Your task to perform on an android device: Search for Italian restaurants on Maps Image 0: 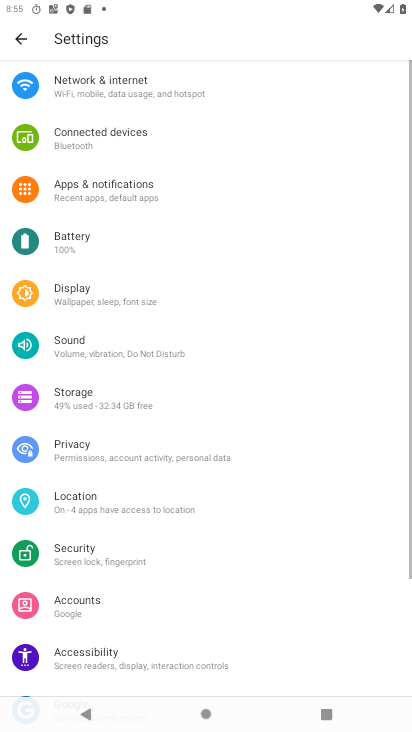
Step 0: press home button
Your task to perform on an android device: Search for Italian restaurants on Maps Image 1: 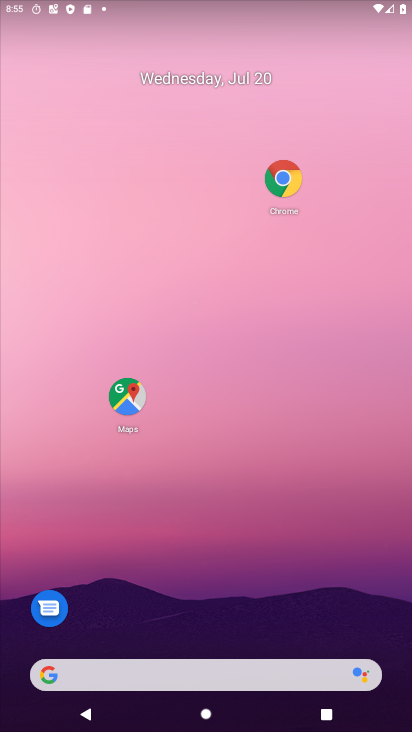
Step 1: drag from (222, 593) to (191, 102)
Your task to perform on an android device: Search for Italian restaurants on Maps Image 2: 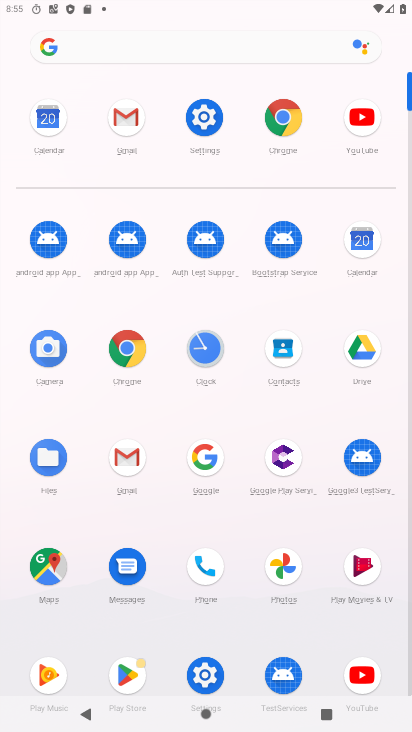
Step 2: click (55, 578)
Your task to perform on an android device: Search for Italian restaurants on Maps Image 3: 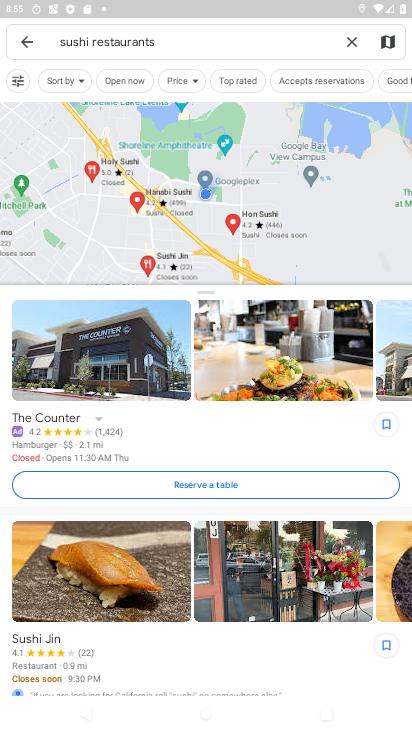
Step 3: click (351, 46)
Your task to perform on an android device: Search for Italian restaurants on Maps Image 4: 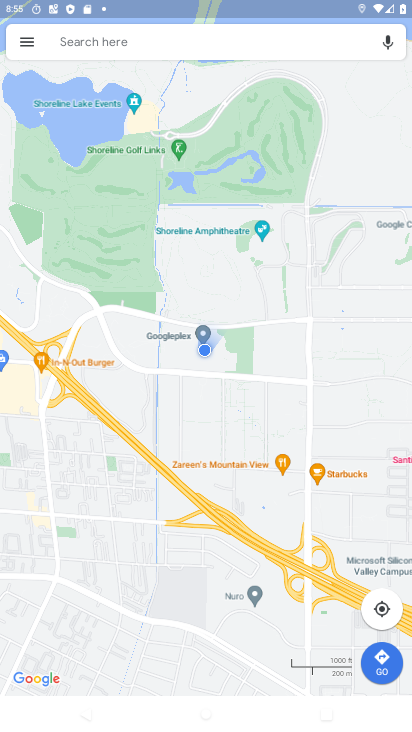
Step 4: click (166, 42)
Your task to perform on an android device: Search for Italian restaurants on Maps Image 5: 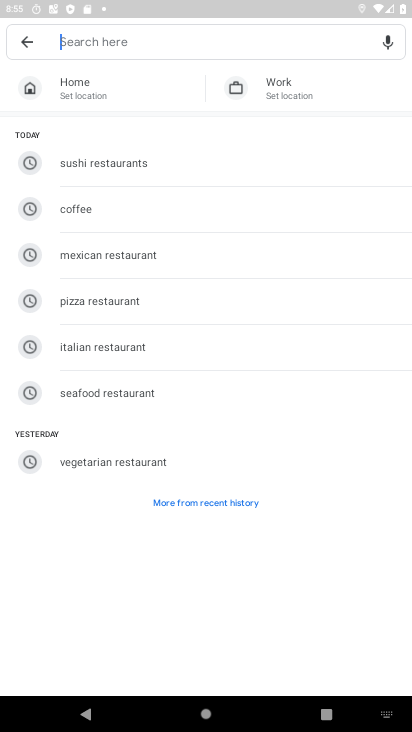
Step 5: click (120, 353)
Your task to perform on an android device: Search for Italian restaurants on Maps Image 6: 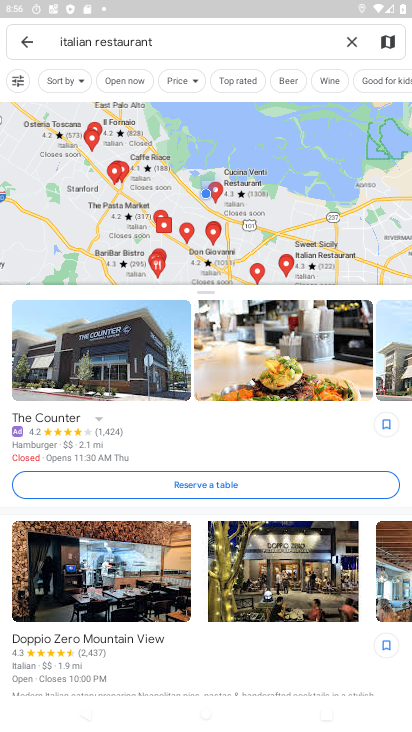
Step 6: task complete